Your task to perform on an android device: turn on the 24-hour format for clock Image 0: 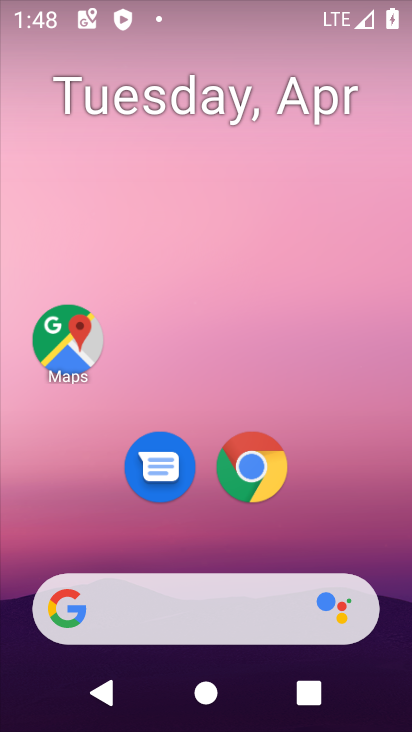
Step 0: drag from (381, 526) to (372, 140)
Your task to perform on an android device: turn on the 24-hour format for clock Image 1: 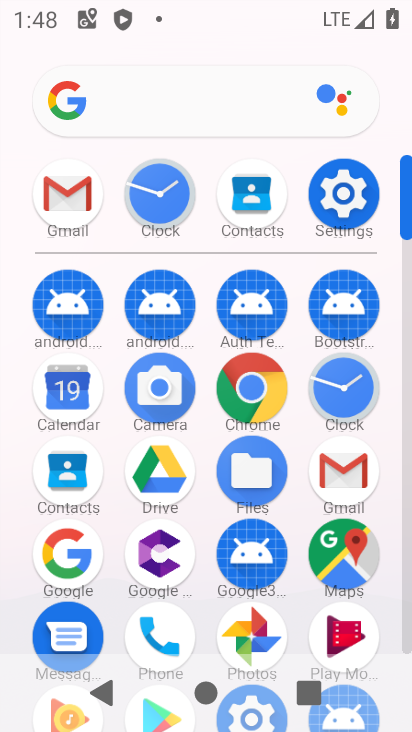
Step 1: click (339, 392)
Your task to perform on an android device: turn on the 24-hour format for clock Image 2: 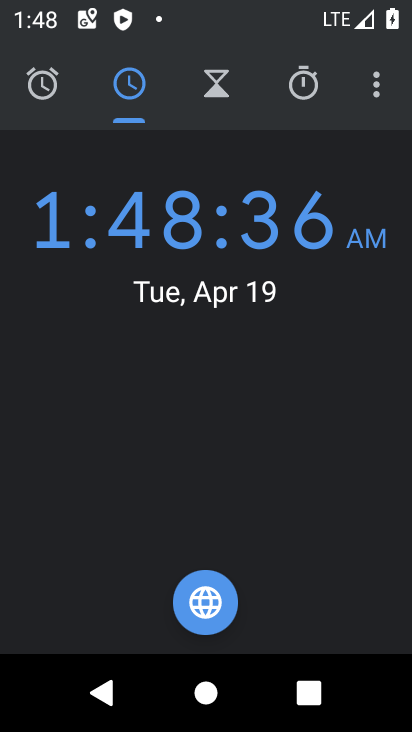
Step 2: click (378, 91)
Your task to perform on an android device: turn on the 24-hour format for clock Image 3: 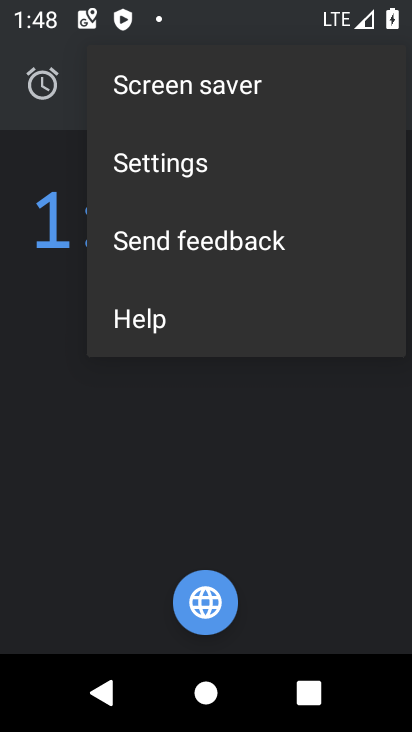
Step 3: click (161, 171)
Your task to perform on an android device: turn on the 24-hour format for clock Image 4: 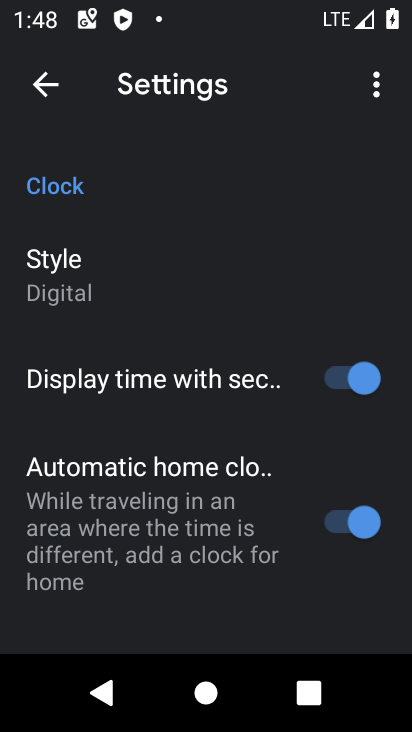
Step 4: drag from (295, 578) to (288, 380)
Your task to perform on an android device: turn on the 24-hour format for clock Image 5: 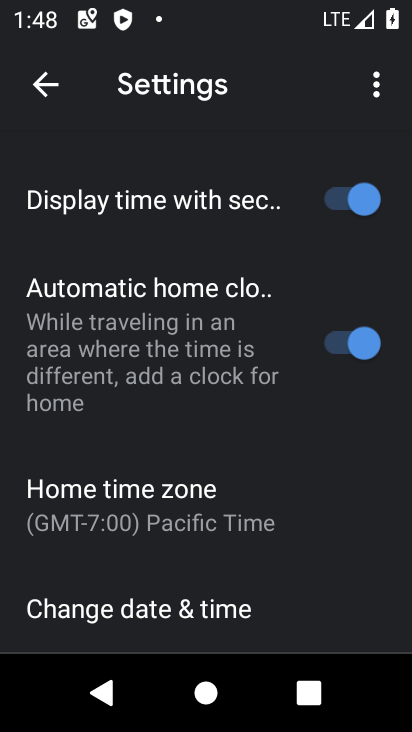
Step 5: drag from (295, 550) to (292, 331)
Your task to perform on an android device: turn on the 24-hour format for clock Image 6: 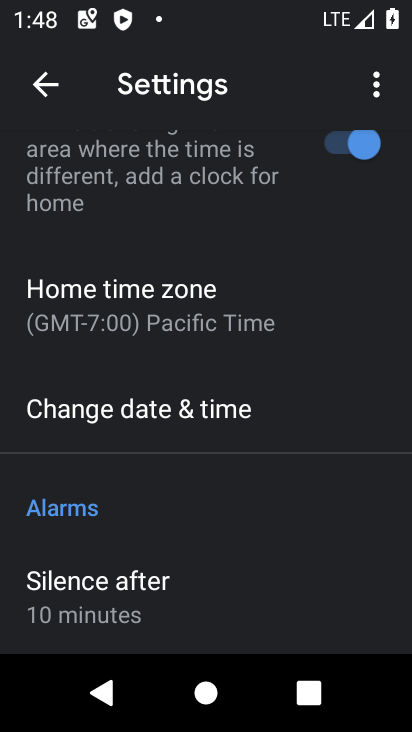
Step 6: drag from (303, 518) to (317, 302)
Your task to perform on an android device: turn on the 24-hour format for clock Image 7: 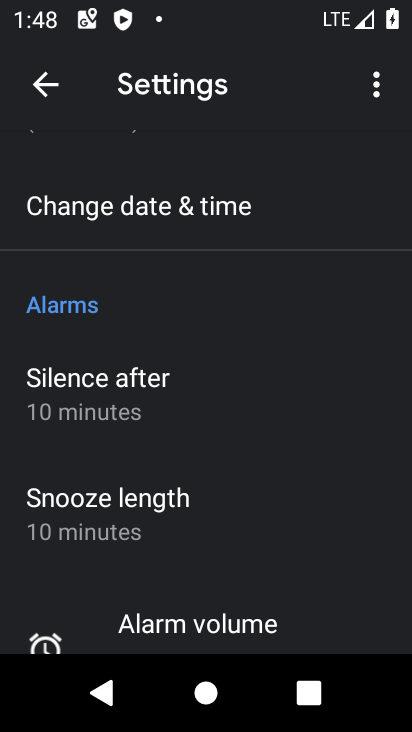
Step 7: drag from (325, 531) to (332, 348)
Your task to perform on an android device: turn on the 24-hour format for clock Image 8: 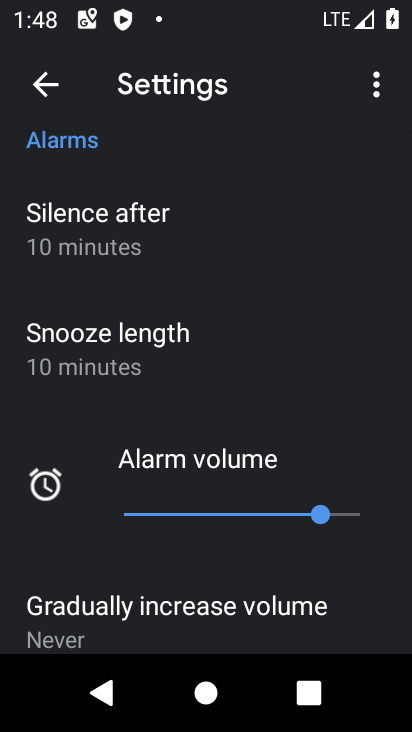
Step 8: drag from (371, 577) to (378, 277)
Your task to perform on an android device: turn on the 24-hour format for clock Image 9: 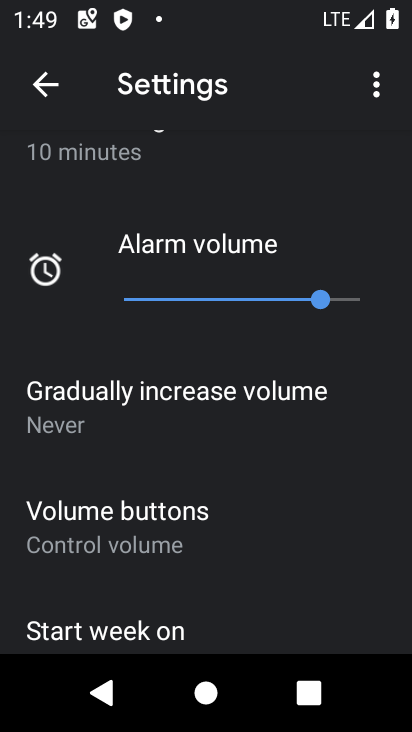
Step 9: drag from (363, 551) to (385, 330)
Your task to perform on an android device: turn on the 24-hour format for clock Image 10: 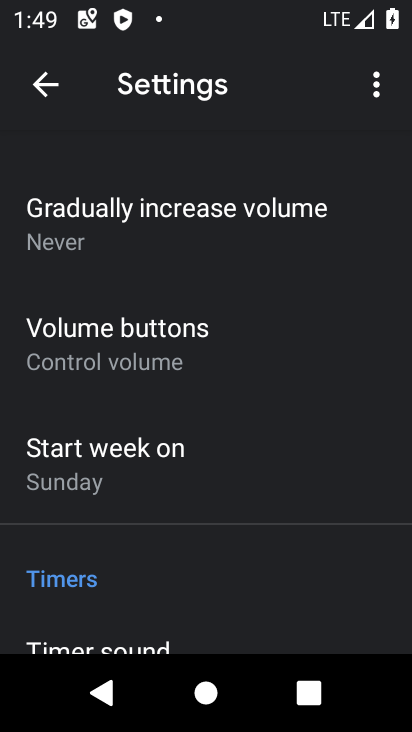
Step 10: drag from (344, 556) to (359, 292)
Your task to perform on an android device: turn on the 24-hour format for clock Image 11: 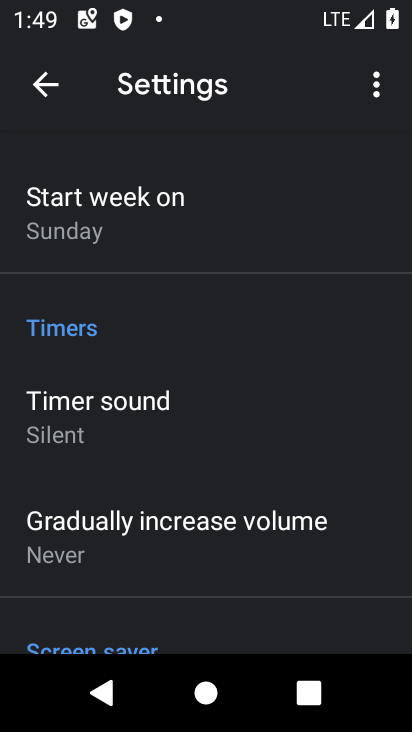
Step 11: drag from (353, 267) to (351, 462)
Your task to perform on an android device: turn on the 24-hour format for clock Image 12: 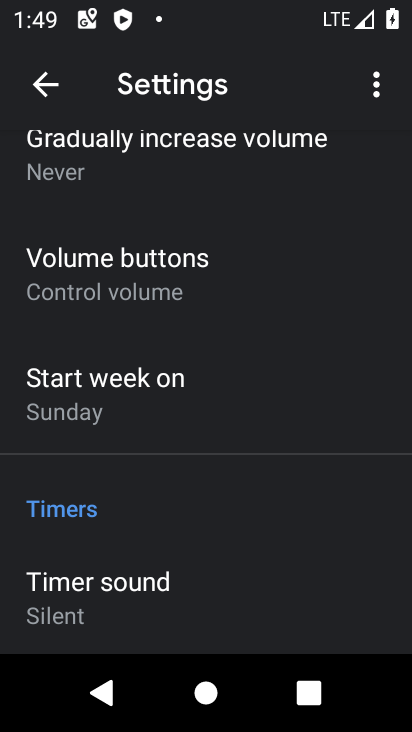
Step 12: drag from (352, 243) to (337, 476)
Your task to perform on an android device: turn on the 24-hour format for clock Image 13: 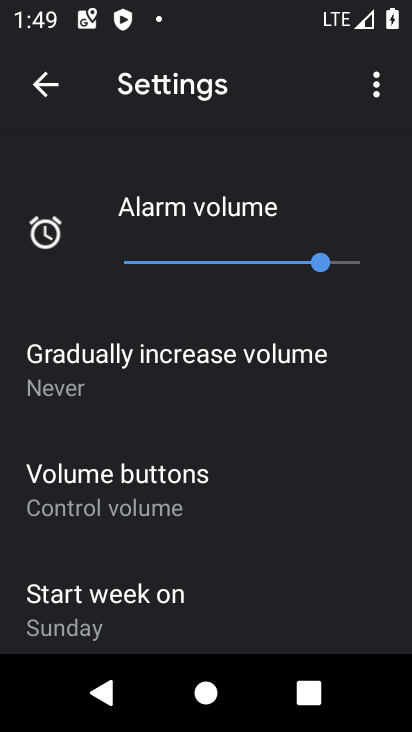
Step 13: drag from (373, 196) to (369, 411)
Your task to perform on an android device: turn on the 24-hour format for clock Image 14: 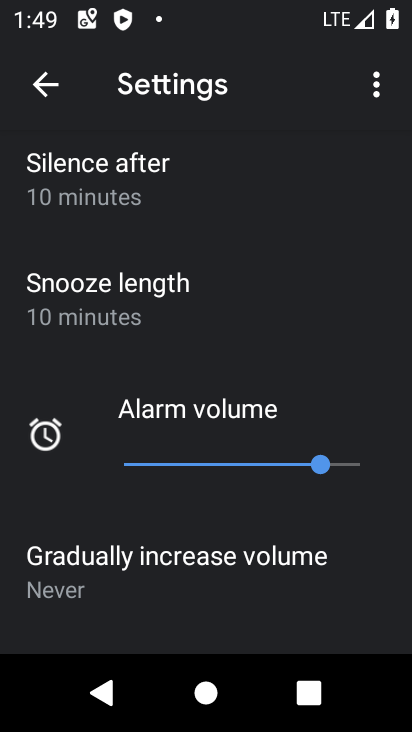
Step 14: drag from (356, 192) to (354, 436)
Your task to perform on an android device: turn on the 24-hour format for clock Image 15: 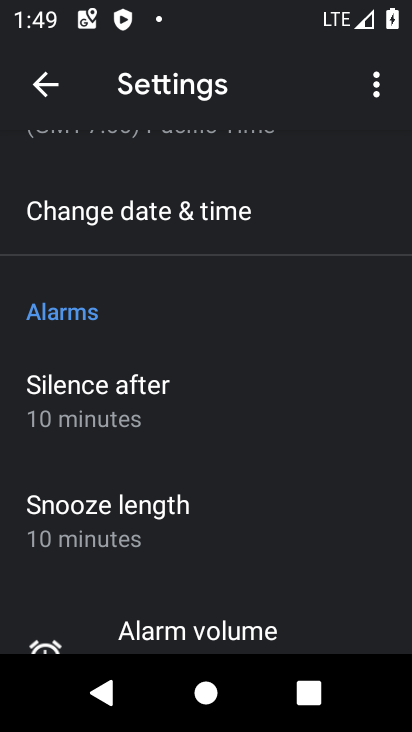
Step 15: click (189, 215)
Your task to perform on an android device: turn on the 24-hour format for clock Image 16: 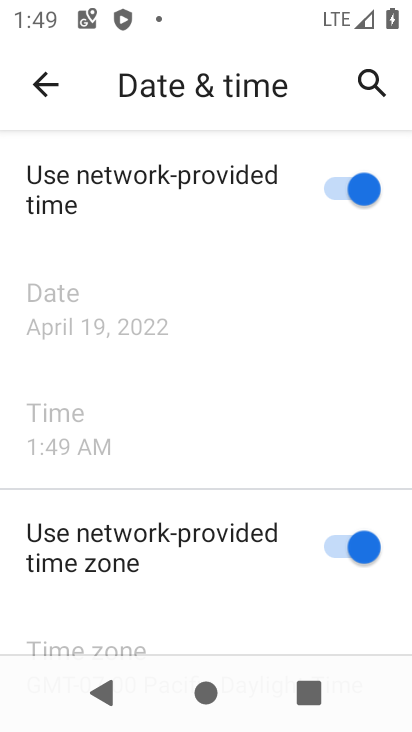
Step 16: drag from (280, 590) to (304, 247)
Your task to perform on an android device: turn on the 24-hour format for clock Image 17: 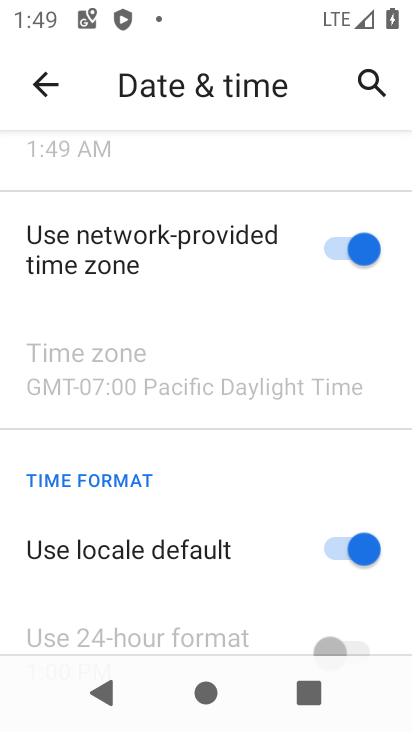
Step 17: drag from (268, 460) to (271, 276)
Your task to perform on an android device: turn on the 24-hour format for clock Image 18: 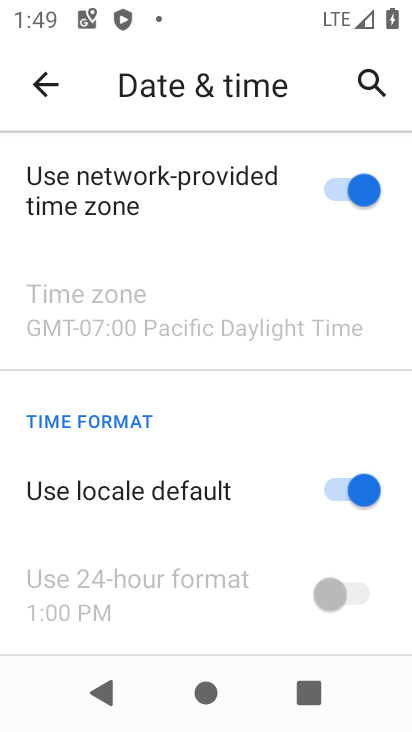
Step 18: click (337, 488)
Your task to perform on an android device: turn on the 24-hour format for clock Image 19: 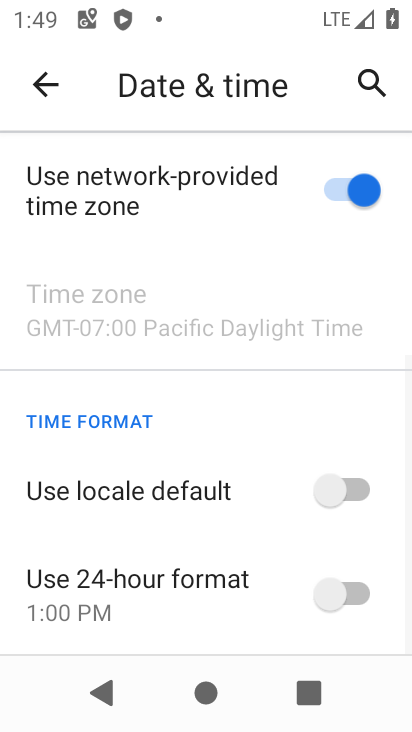
Step 19: click (332, 596)
Your task to perform on an android device: turn on the 24-hour format for clock Image 20: 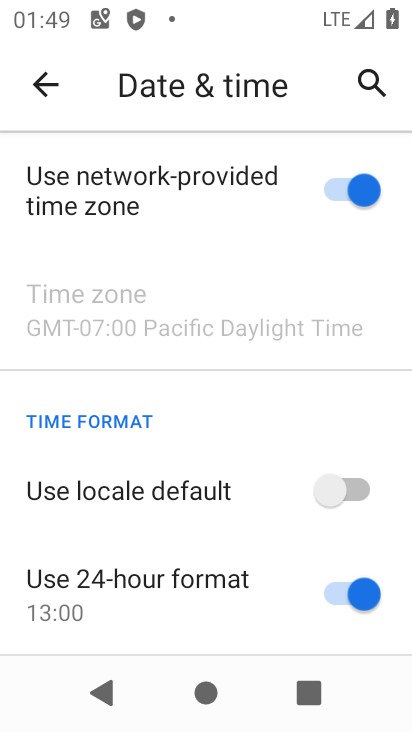
Step 20: task complete